Your task to perform on an android device: turn on the 24-hour format for clock Image 0: 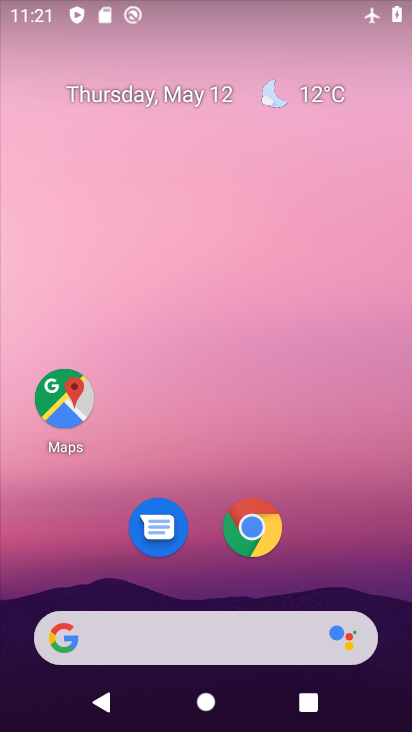
Step 0: drag from (365, 0) to (264, 574)
Your task to perform on an android device: turn on the 24-hour format for clock Image 1: 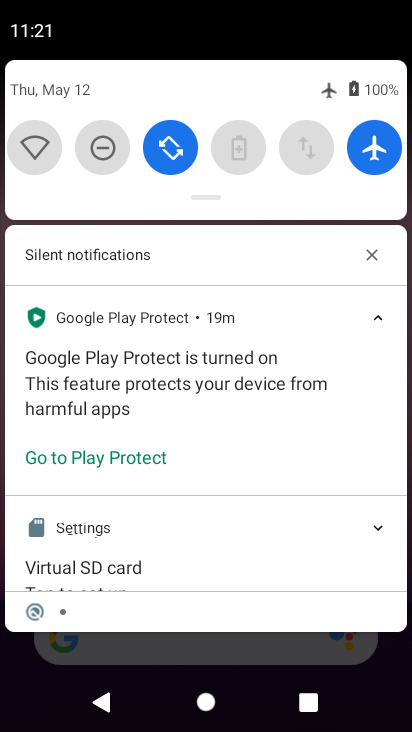
Step 1: click (375, 150)
Your task to perform on an android device: turn on the 24-hour format for clock Image 2: 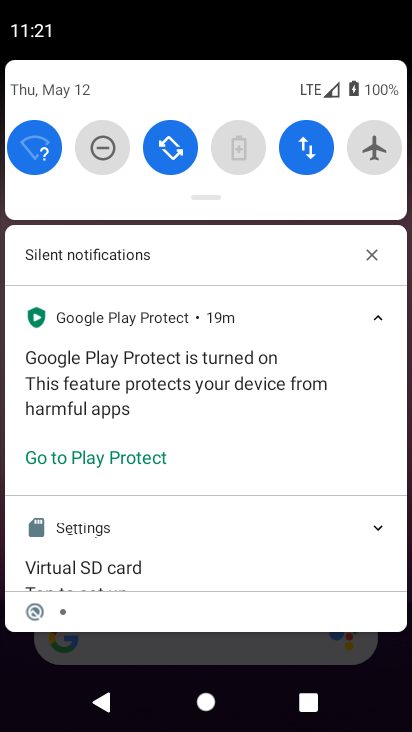
Step 2: press home button
Your task to perform on an android device: turn on the 24-hour format for clock Image 3: 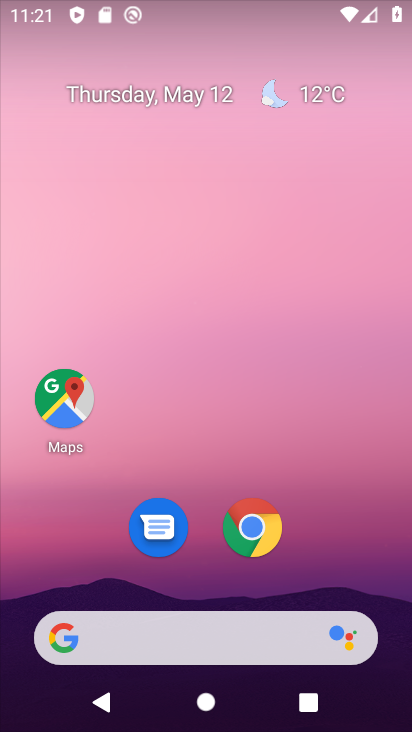
Step 3: drag from (72, 589) to (401, 104)
Your task to perform on an android device: turn on the 24-hour format for clock Image 4: 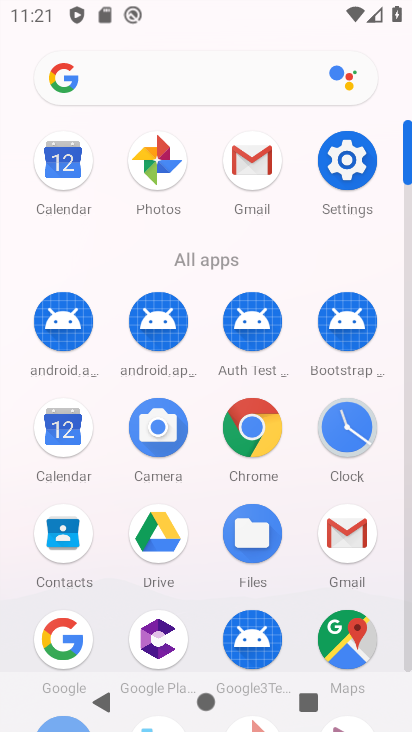
Step 4: click (349, 440)
Your task to perform on an android device: turn on the 24-hour format for clock Image 5: 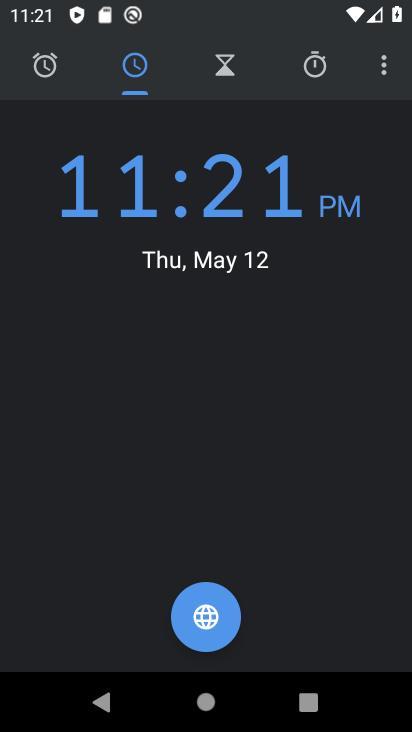
Step 5: click (382, 81)
Your task to perform on an android device: turn on the 24-hour format for clock Image 6: 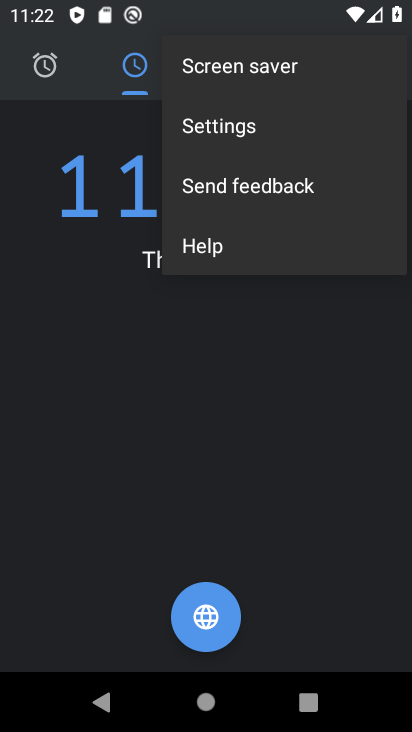
Step 6: click (288, 158)
Your task to perform on an android device: turn on the 24-hour format for clock Image 7: 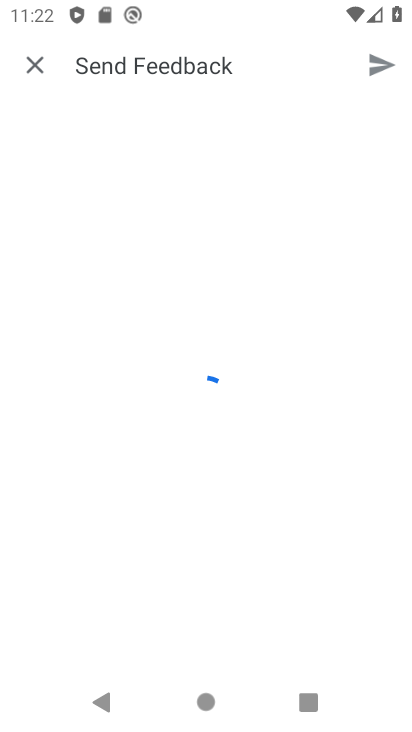
Step 7: click (118, 706)
Your task to perform on an android device: turn on the 24-hour format for clock Image 8: 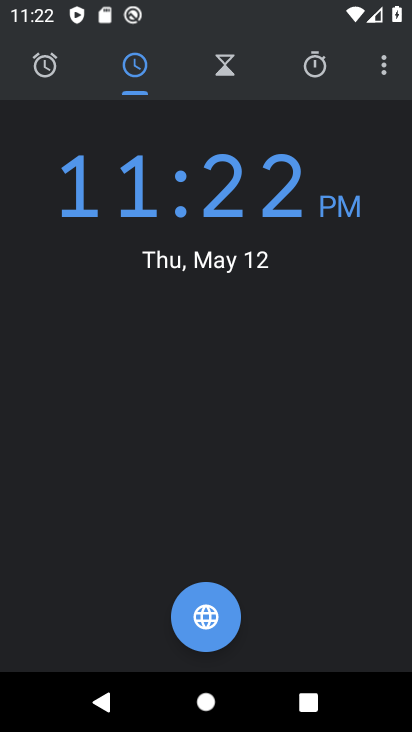
Step 8: click (385, 66)
Your task to perform on an android device: turn on the 24-hour format for clock Image 9: 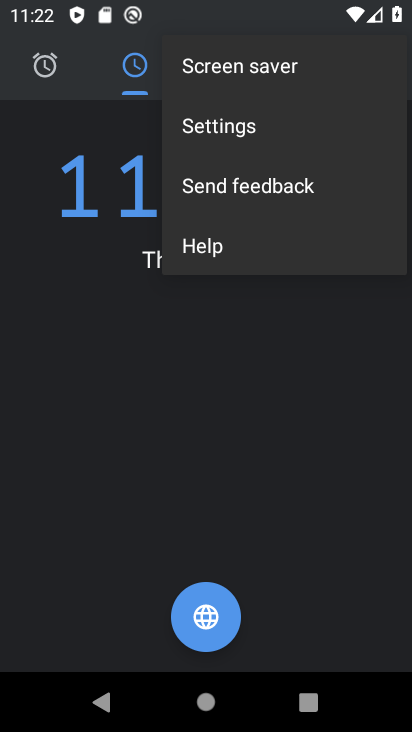
Step 9: click (264, 125)
Your task to perform on an android device: turn on the 24-hour format for clock Image 10: 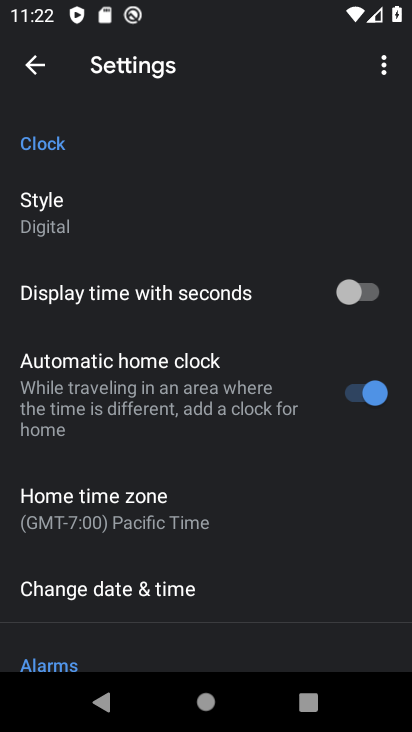
Step 10: click (55, 597)
Your task to perform on an android device: turn on the 24-hour format for clock Image 11: 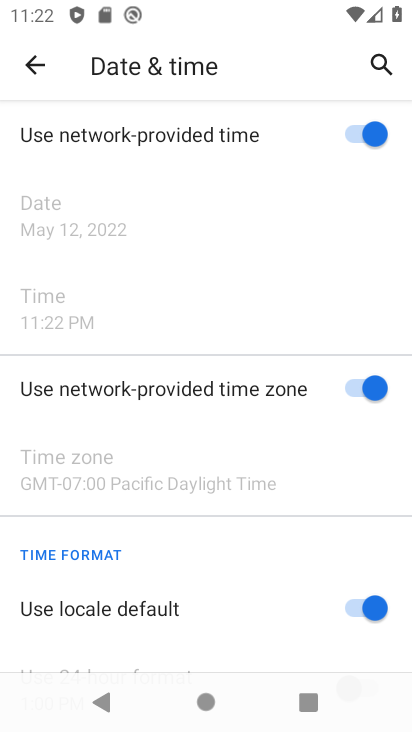
Step 11: drag from (60, 649) to (254, 215)
Your task to perform on an android device: turn on the 24-hour format for clock Image 12: 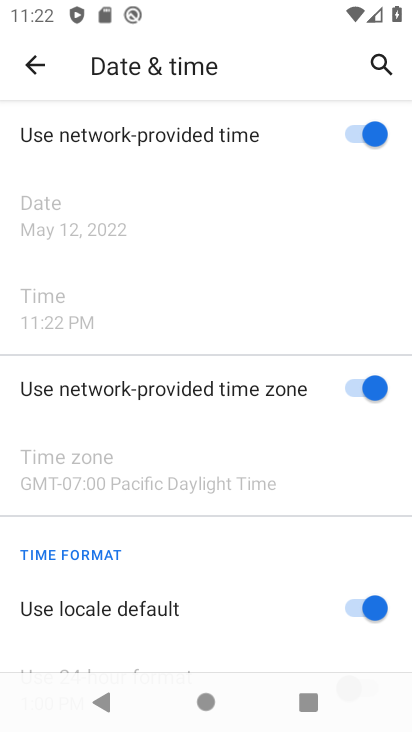
Step 12: drag from (64, 509) to (310, 113)
Your task to perform on an android device: turn on the 24-hour format for clock Image 13: 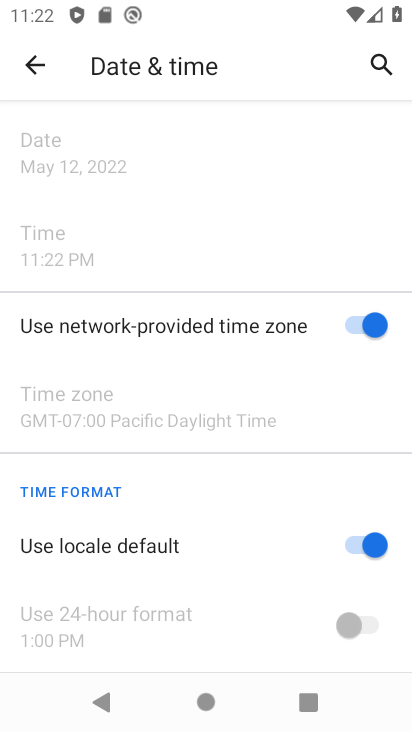
Step 13: click (375, 542)
Your task to perform on an android device: turn on the 24-hour format for clock Image 14: 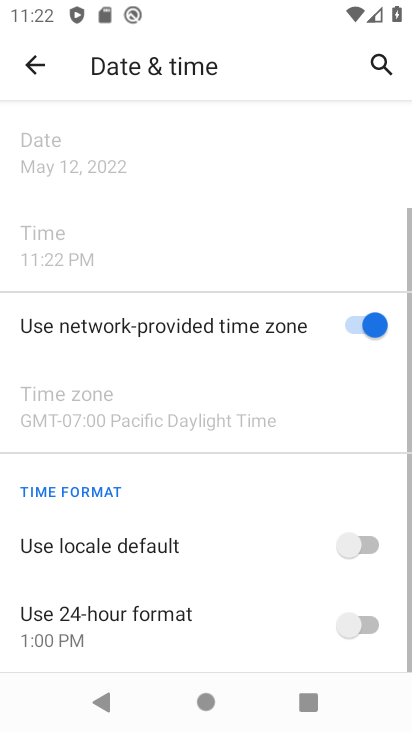
Step 14: click (348, 633)
Your task to perform on an android device: turn on the 24-hour format for clock Image 15: 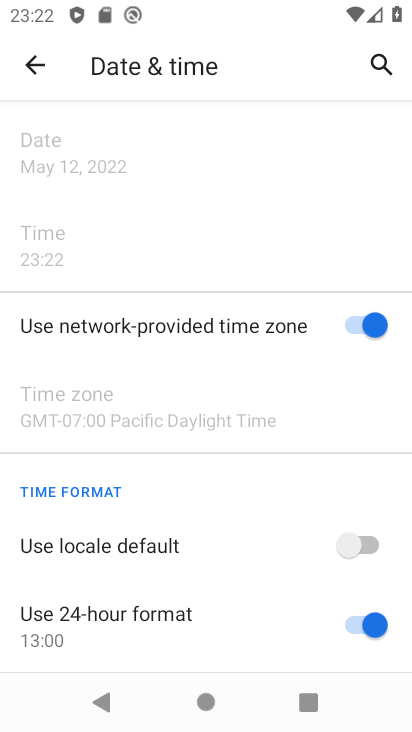
Step 15: task complete